Your task to perform on an android device: Do I have any events this weekend? Image 0: 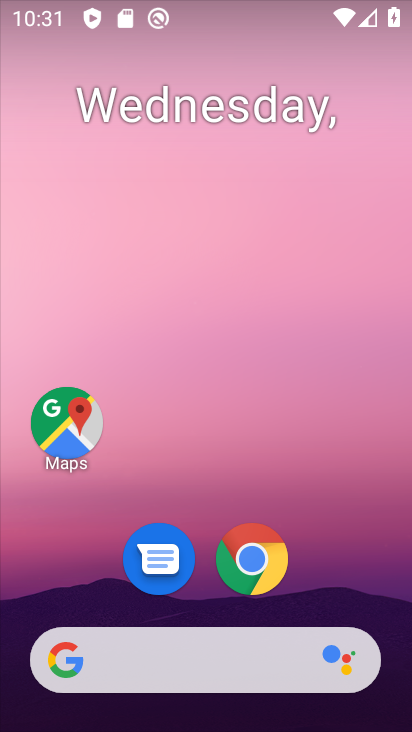
Step 0: drag from (353, 514) to (224, 7)
Your task to perform on an android device: Do I have any events this weekend? Image 1: 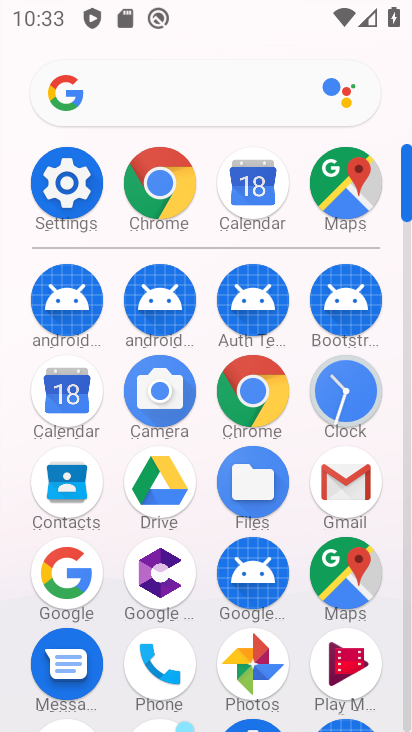
Step 1: click (63, 414)
Your task to perform on an android device: Do I have any events this weekend? Image 2: 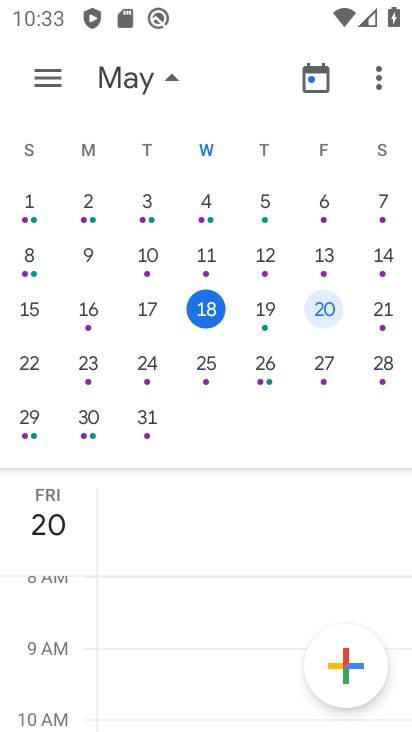
Step 2: click (371, 319)
Your task to perform on an android device: Do I have any events this weekend? Image 3: 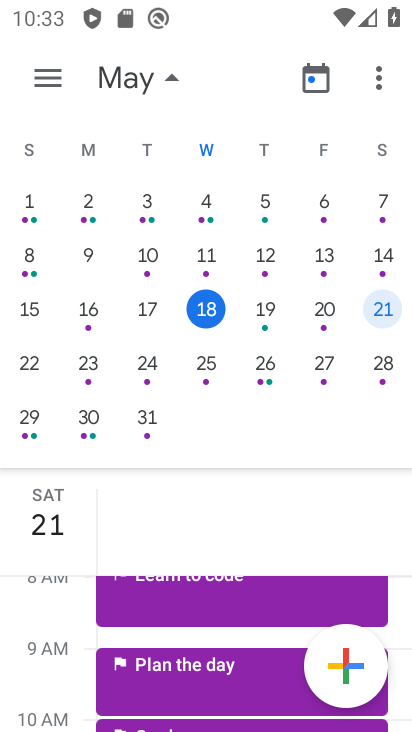
Step 3: task complete